Your task to perform on an android device: create a new album in the google photos Image 0: 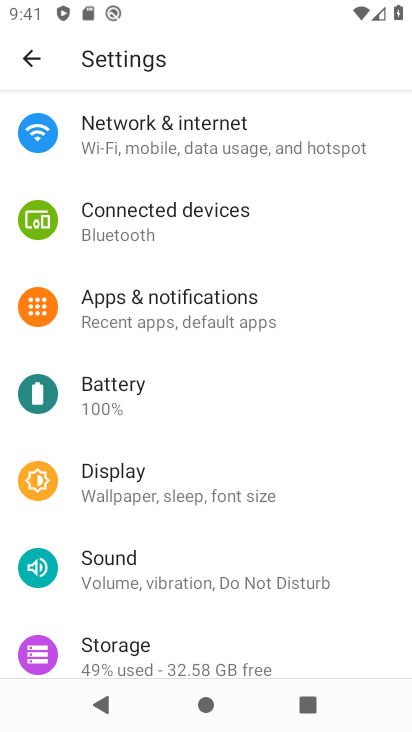
Step 0: press home button
Your task to perform on an android device: create a new album in the google photos Image 1: 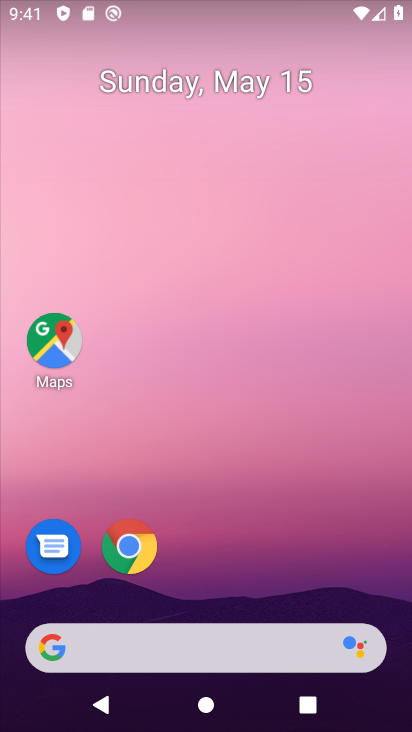
Step 1: drag from (214, 564) to (201, 97)
Your task to perform on an android device: create a new album in the google photos Image 2: 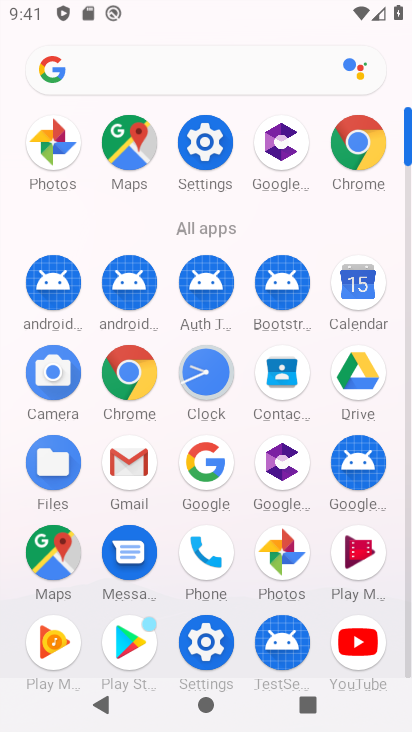
Step 2: click (291, 560)
Your task to perform on an android device: create a new album in the google photos Image 3: 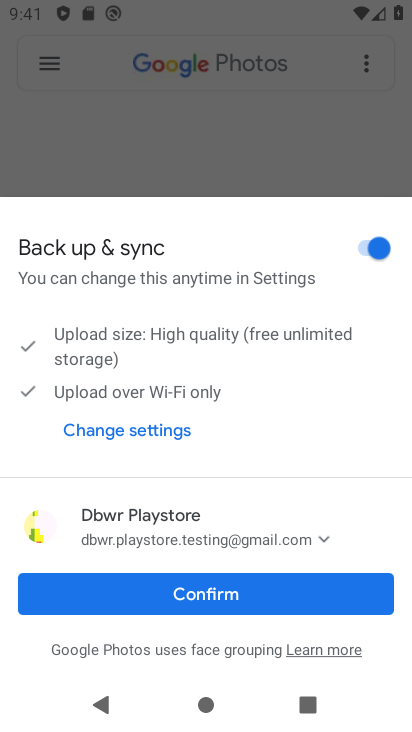
Step 3: click (212, 582)
Your task to perform on an android device: create a new album in the google photos Image 4: 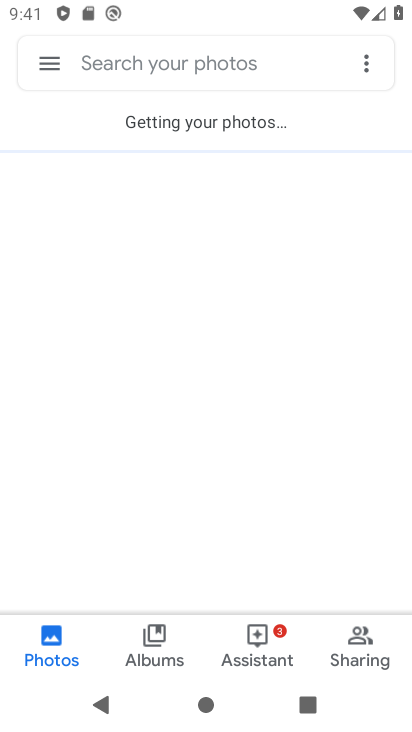
Step 4: click (163, 626)
Your task to perform on an android device: create a new album in the google photos Image 5: 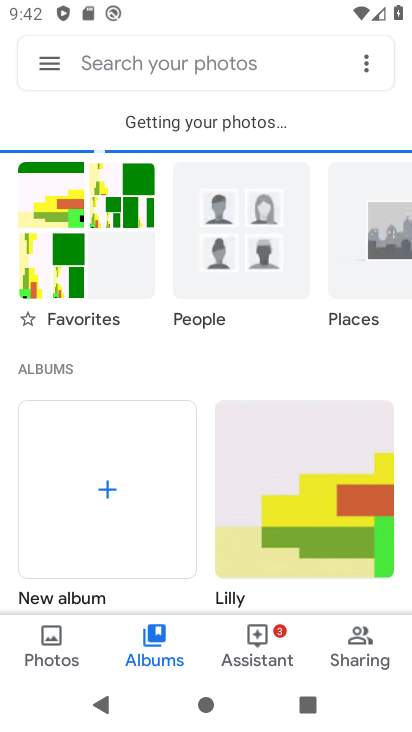
Step 5: click (107, 499)
Your task to perform on an android device: create a new album in the google photos Image 6: 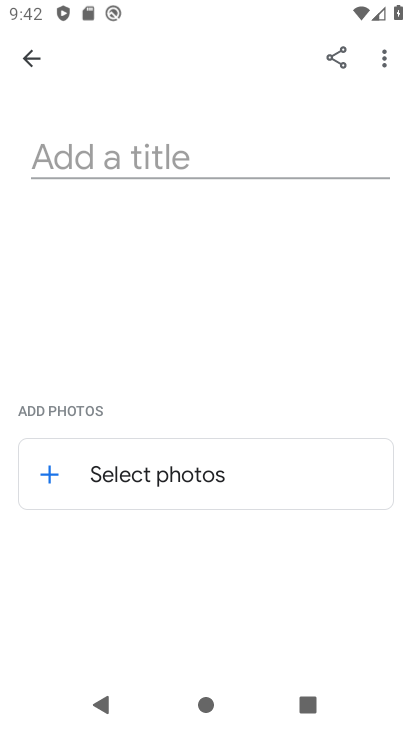
Step 6: click (158, 150)
Your task to perform on an android device: create a new album in the google photos Image 7: 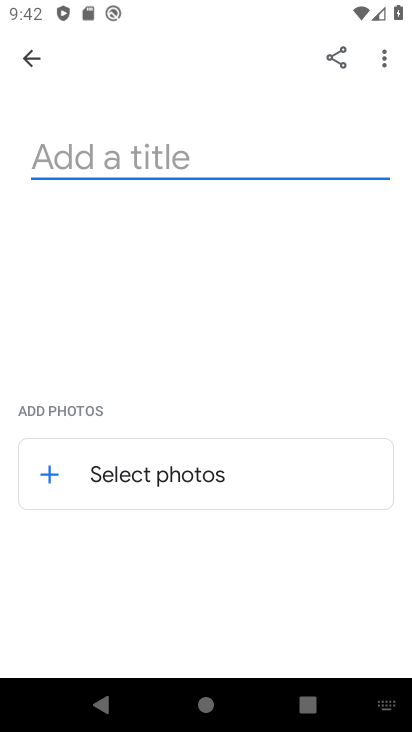
Step 7: type "laugh"
Your task to perform on an android device: create a new album in the google photos Image 8: 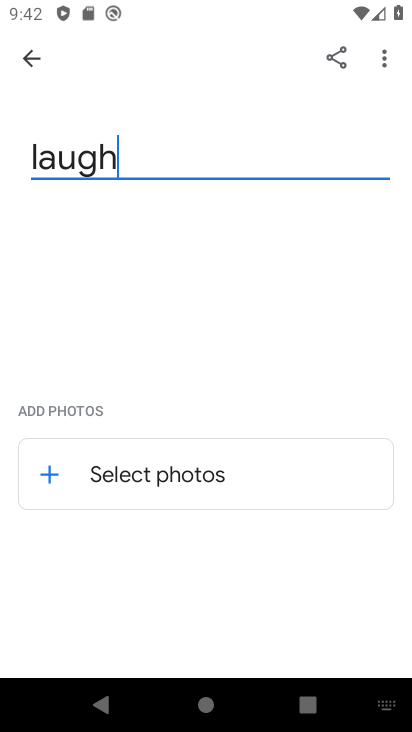
Step 8: click (143, 477)
Your task to perform on an android device: create a new album in the google photos Image 9: 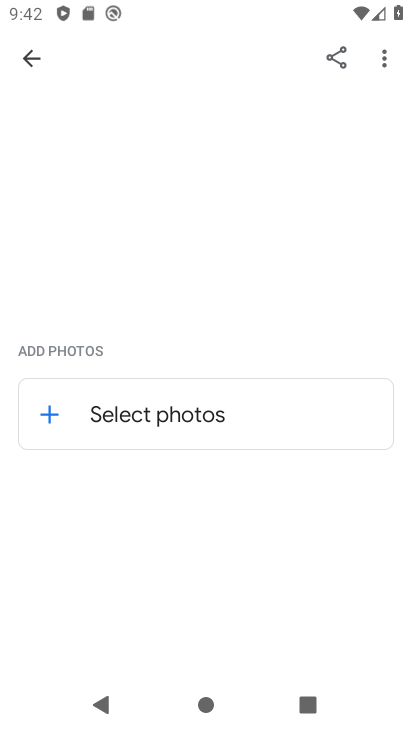
Step 9: click (150, 427)
Your task to perform on an android device: create a new album in the google photos Image 10: 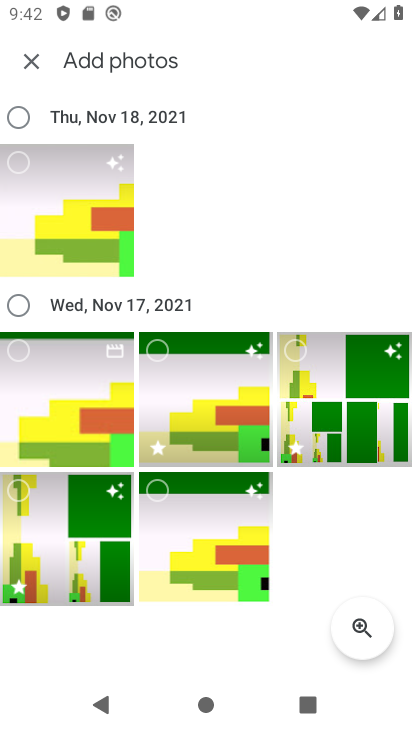
Step 10: click (39, 184)
Your task to perform on an android device: create a new album in the google photos Image 11: 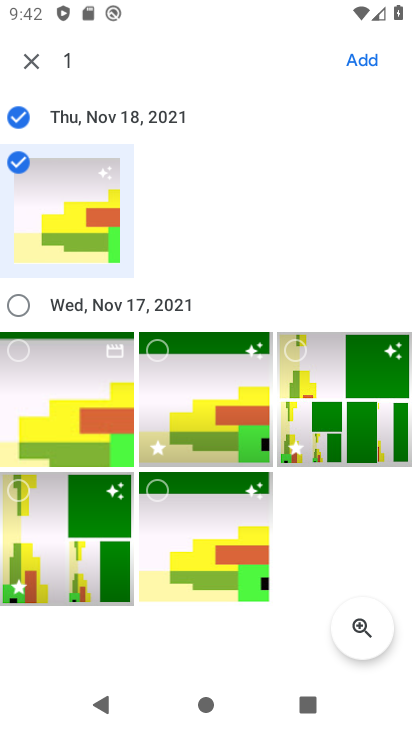
Step 11: click (350, 46)
Your task to perform on an android device: create a new album in the google photos Image 12: 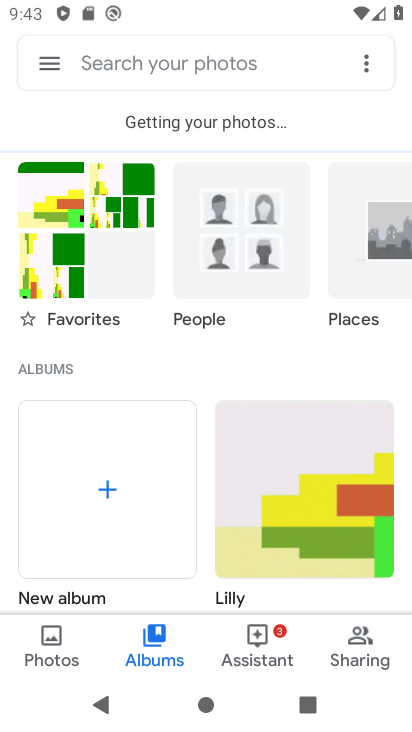
Step 12: task complete